Your task to perform on an android device: Open Youtube and go to the subscriptions tab Image 0: 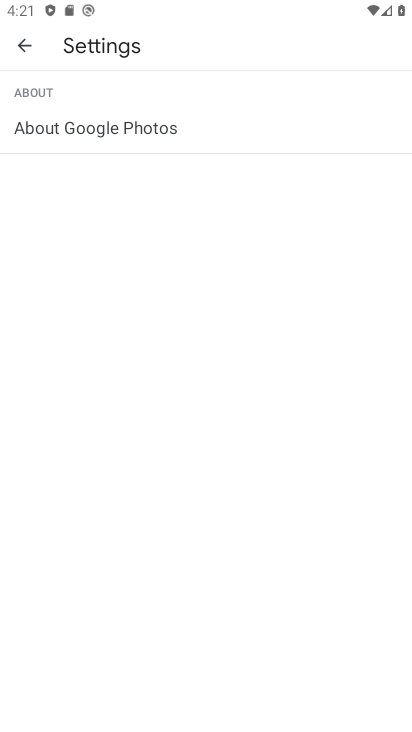
Step 0: press back button
Your task to perform on an android device: Open Youtube and go to the subscriptions tab Image 1: 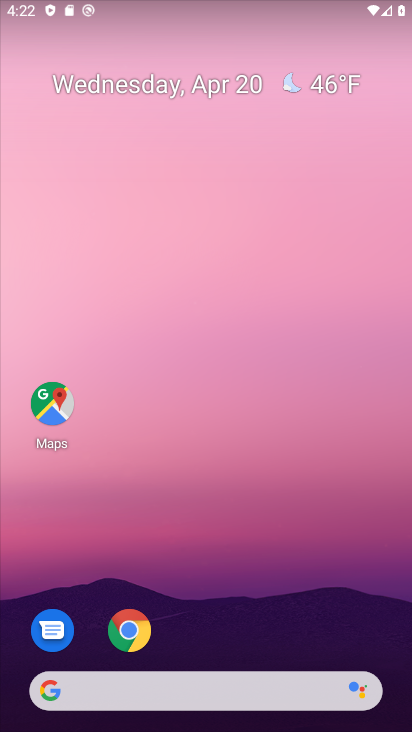
Step 1: drag from (158, 667) to (230, 310)
Your task to perform on an android device: Open Youtube and go to the subscriptions tab Image 2: 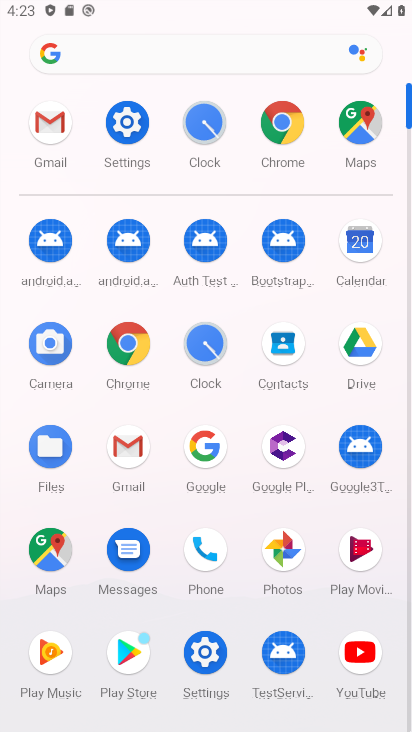
Step 2: click (368, 656)
Your task to perform on an android device: Open Youtube and go to the subscriptions tab Image 3: 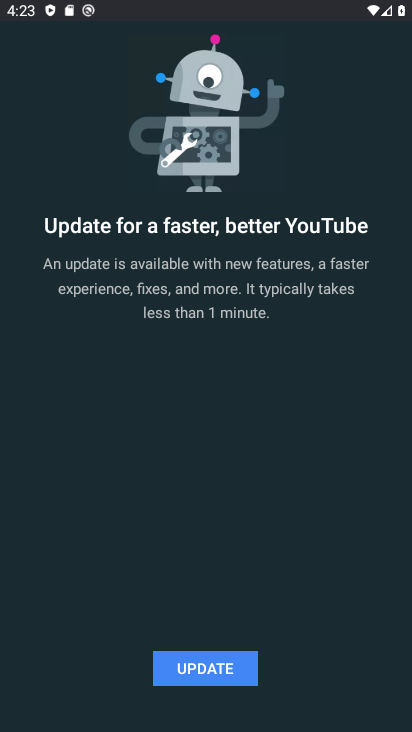
Step 3: click (232, 668)
Your task to perform on an android device: Open Youtube and go to the subscriptions tab Image 4: 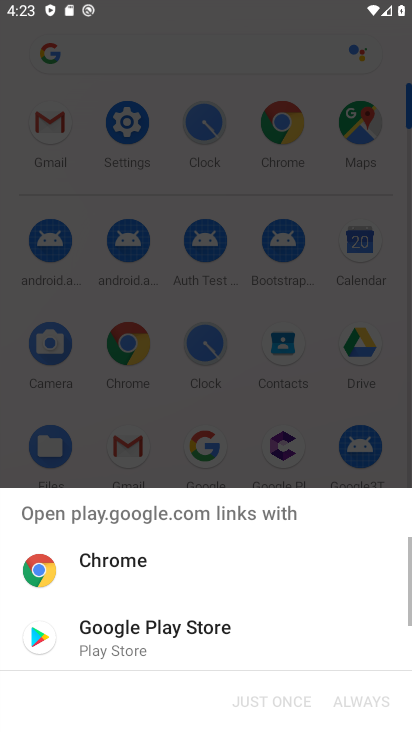
Step 4: click (116, 627)
Your task to perform on an android device: Open Youtube and go to the subscriptions tab Image 5: 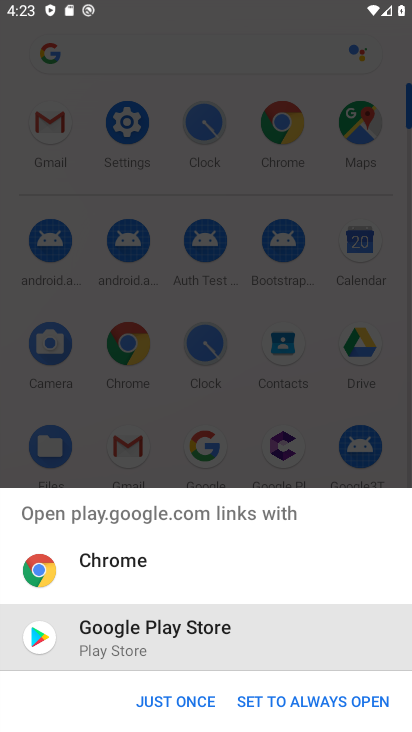
Step 5: click (167, 706)
Your task to perform on an android device: Open Youtube and go to the subscriptions tab Image 6: 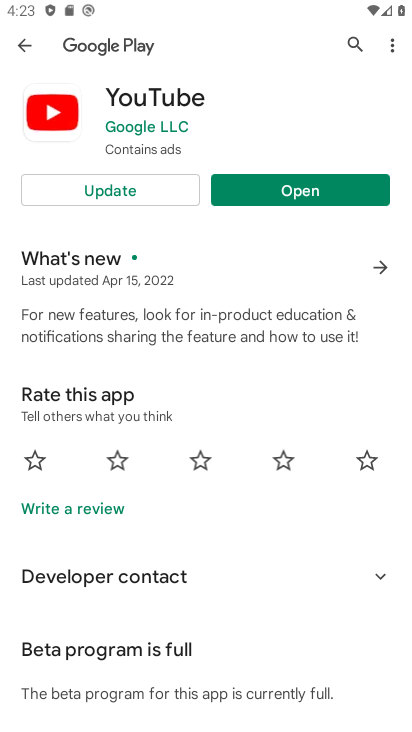
Step 6: click (139, 191)
Your task to perform on an android device: Open Youtube and go to the subscriptions tab Image 7: 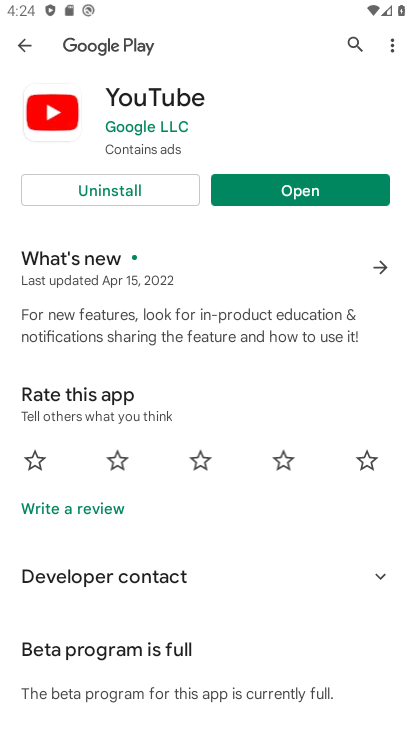
Step 7: click (307, 188)
Your task to perform on an android device: Open Youtube and go to the subscriptions tab Image 8: 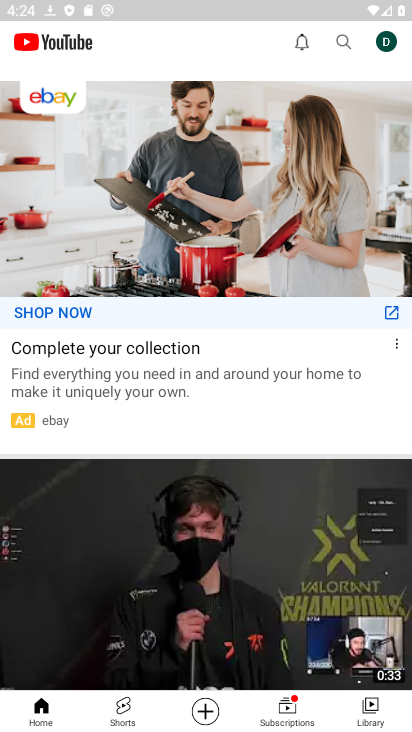
Step 8: click (280, 706)
Your task to perform on an android device: Open Youtube and go to the subscriptions tab Image 9: 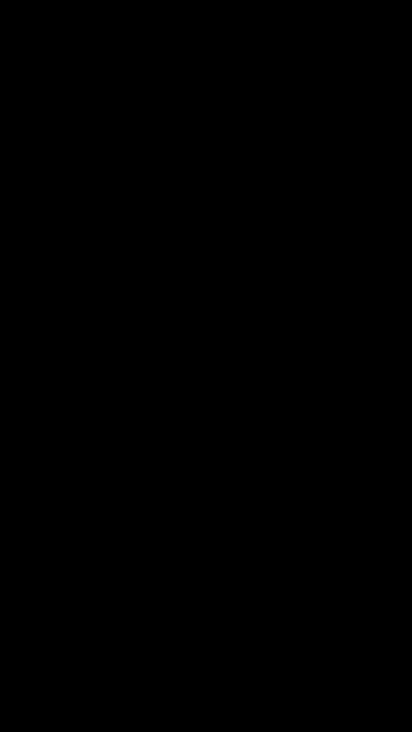
Step 9: task complete